Your task to perform on an android device: turn off picture-in-picture Image 0: 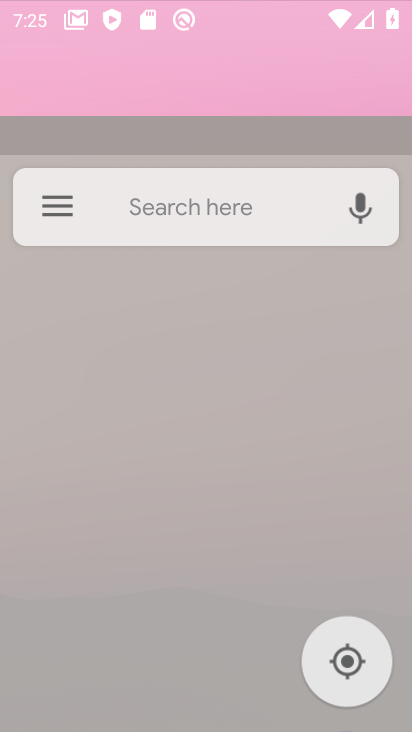
Step 0: press home button
Your task to perform on an android device: turn off picture-in-picture Image 1: 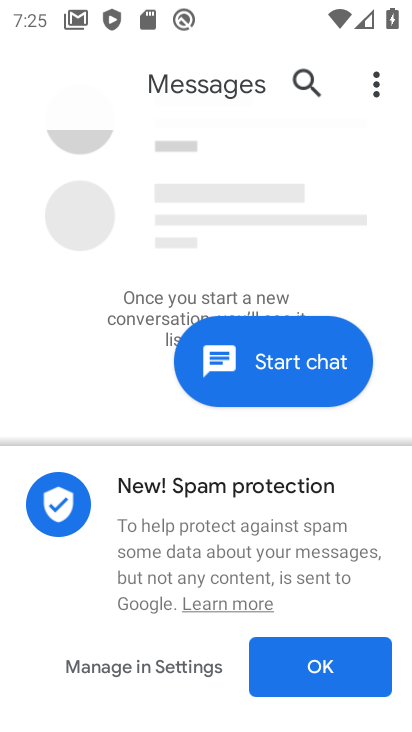
Step 1: drag from (411, 455) to (359, 475)
Your task to perform on an android device: turn off picture-in-picture Image 2: 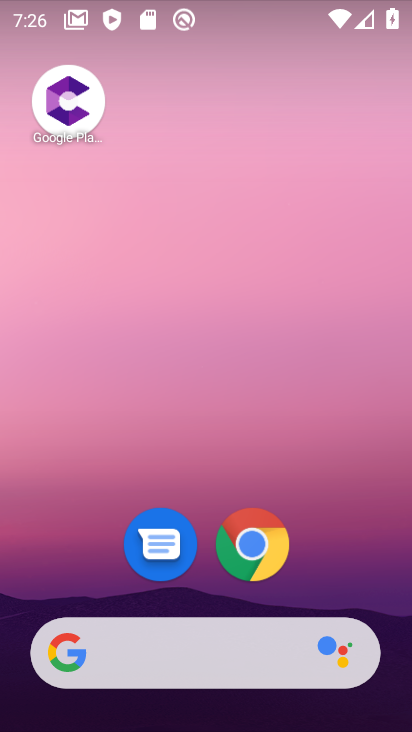
Step 2: click (291, 557)
Your task to perform on an android device: turn off picture-in-picture Image 3: 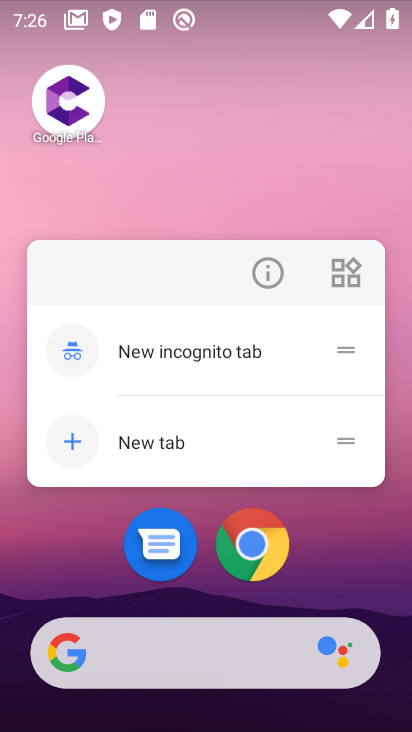
Step 3: click (267, 270)
Your task to perform on an android device: turn off picture-in-picture Image 4: 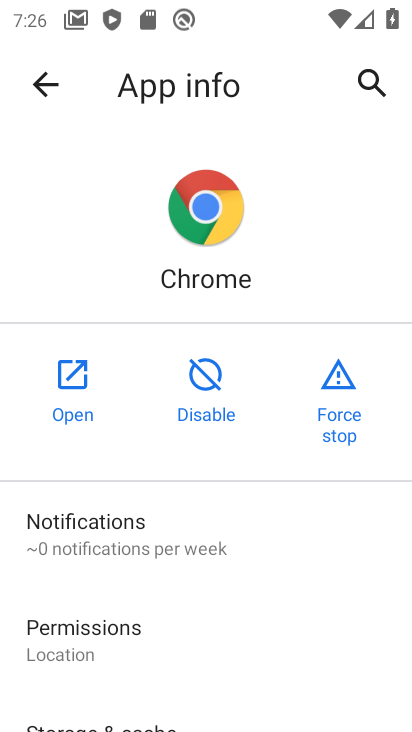
Step 4: drag from (260, 606) to (232, 94)
Your task to perform on an android device: turn off picture-in-picture Image 5: 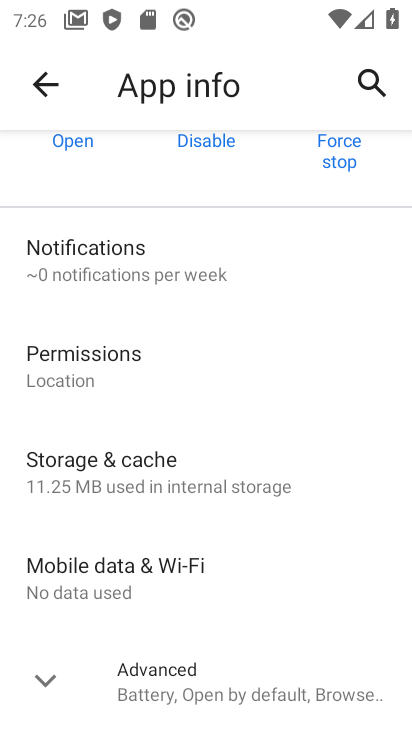
Step 5: drag from (204, 563) to (257, 146)
Your task to perform on an android device: turn off picture-in-picture Image 6: 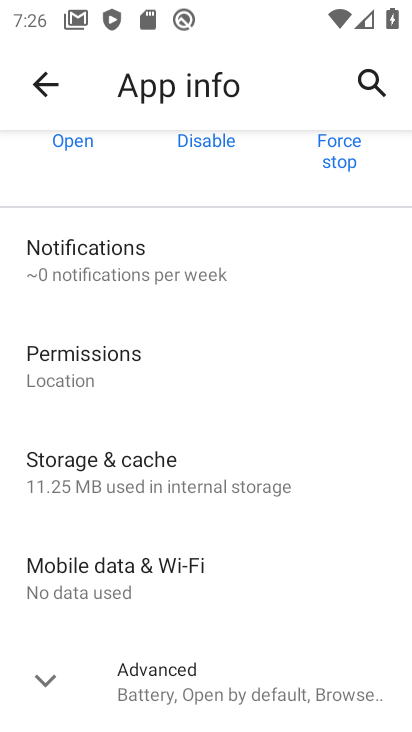
Step 6: drag from (219, 556) to (248, 220)
Your task to perform on an android device: turn off picture-in-picture Image 7: 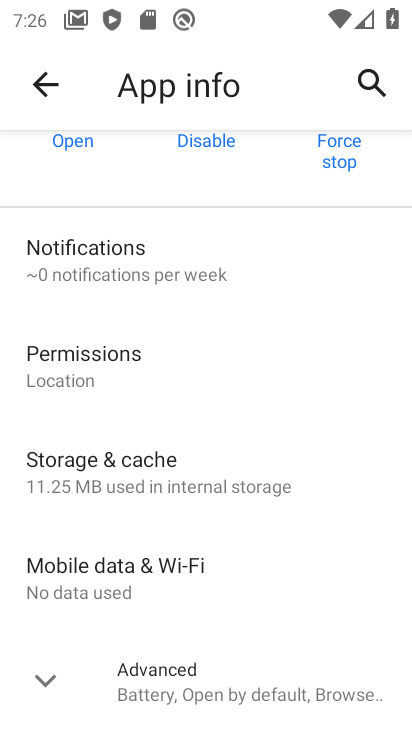
Step 7: click (166, 675)
Your task to perform on an android device: turn off picture-in-picture Image 8: 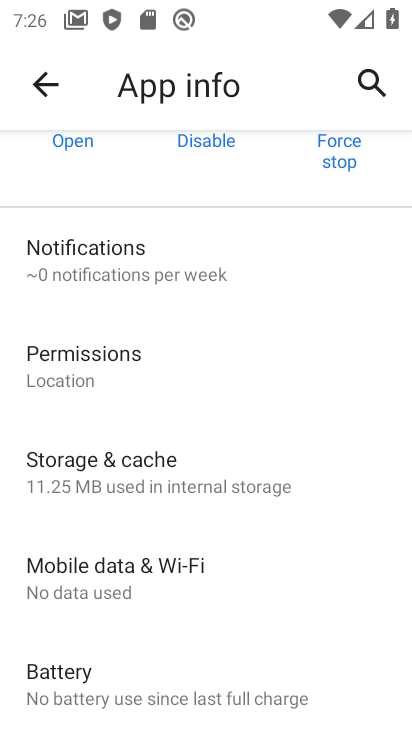
Step 8: drag from (162, 672) to (132, 270)
Your task to perform on an android device: turn off picture-in-picture Image 9: 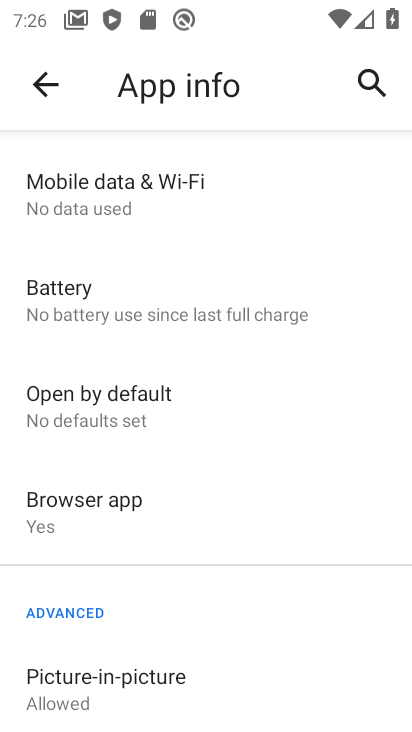
Step 9: drag from (168, 627) to (223, 248)
Your task to perform on an android device: turn off picture-in-picture Image 10: 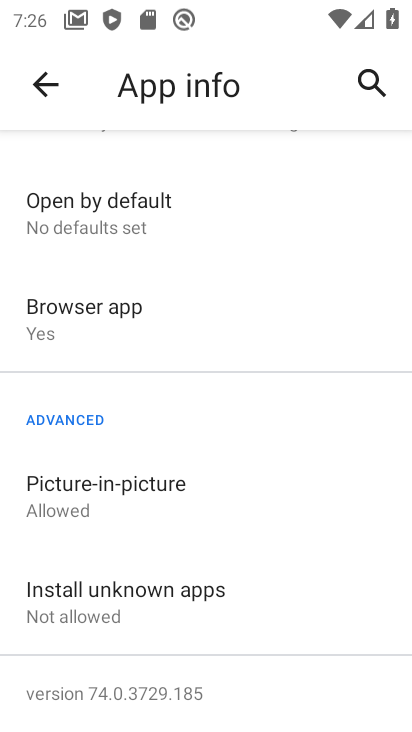
Step 10: click (101, 503)
Your task to perform on an android device: turn off picture-in-picture Image 11: 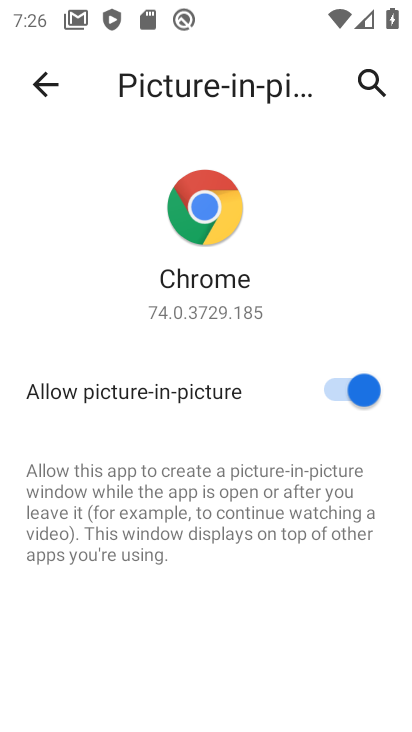
Step 11: click (341, 393)
Your task to perform on an android device: turn off picture-in-picture Image 12: 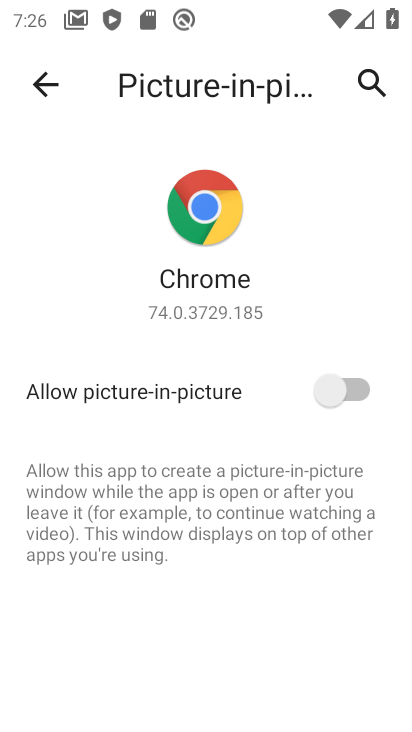
Step 12: task complete